Your task to perform on an android device: change the clock display to analog Image 0: 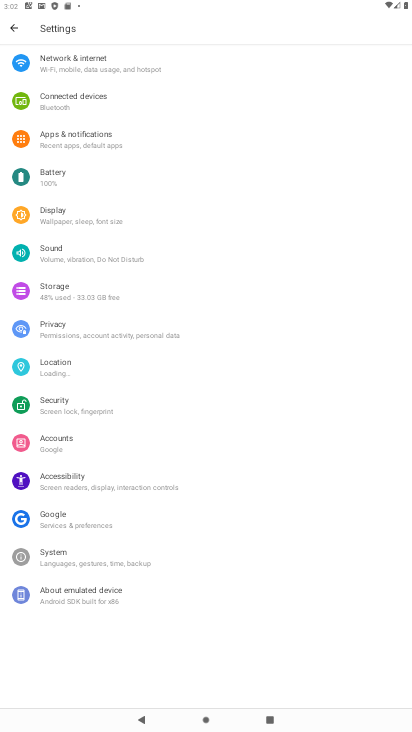
Step 0: press home button
Your task to perform on an android device: change the clock display to analog Image 1: 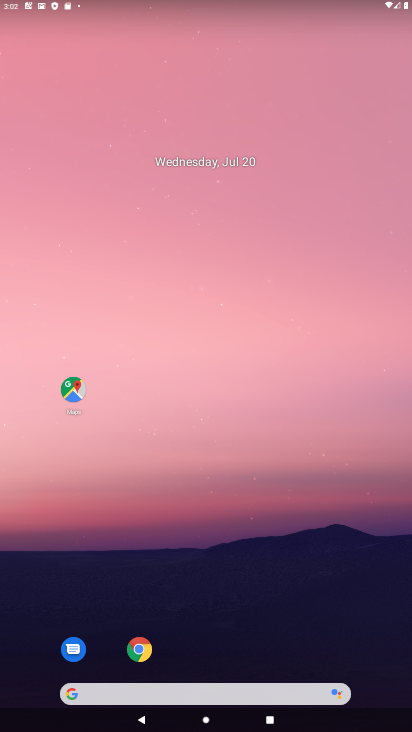
Step 1: drag from (193, 697) to (285, 128)
Your task to perform on an android device: change the clock display to analog Image 2: 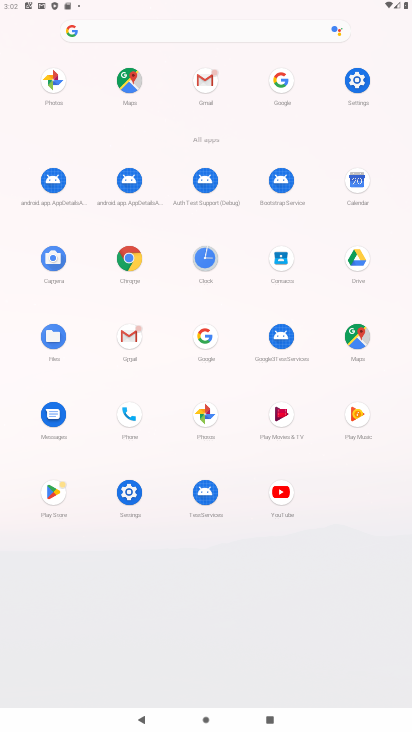
Step 2: click (206, 258)
Your task to perform on an android device: change the clock display to analog Image 3: 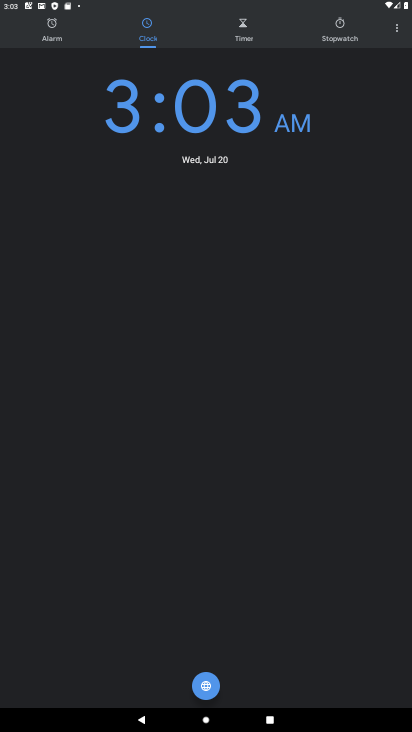
Step 3: click (399, 29)
Your task to perform on an android device: change the clock display to analog Image 4: 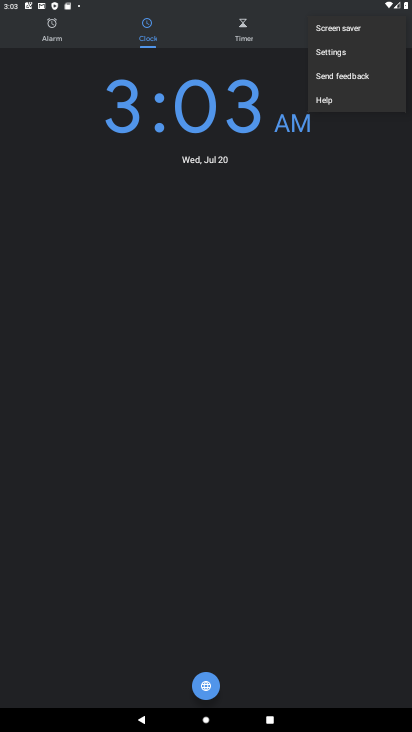
Step 4: click (343, 51)
Your task to perform on an android device: change the clock display to analog Image 5: 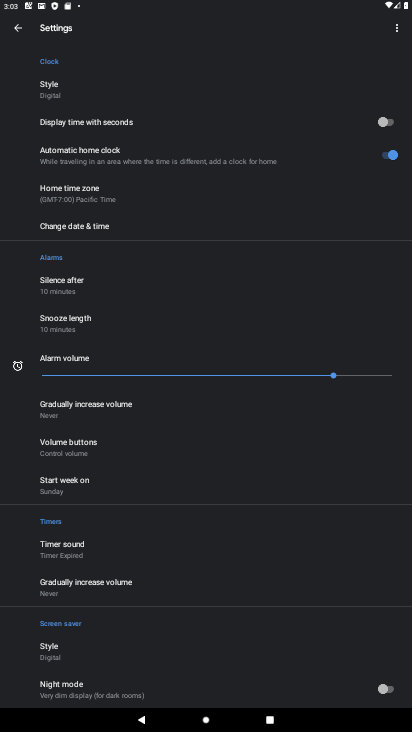
Step 5: click (73, 94)
Your task to perform on an android device: change the clock display to analog Image 6: 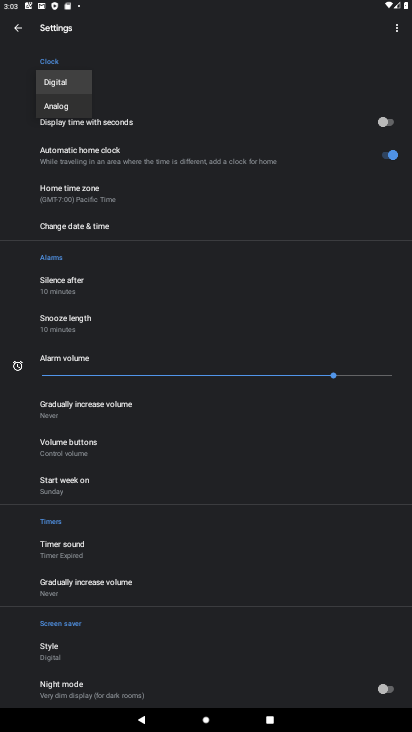
Step 6: click (65, 104)
Your task to perform on an android device: change the clock display to analog Image 7: 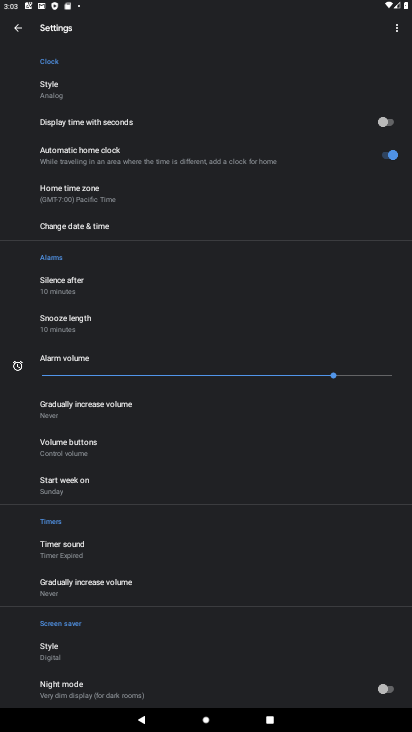
Step 7: task complete